Your task to perform on an android device: Go to battery settings Image 0: 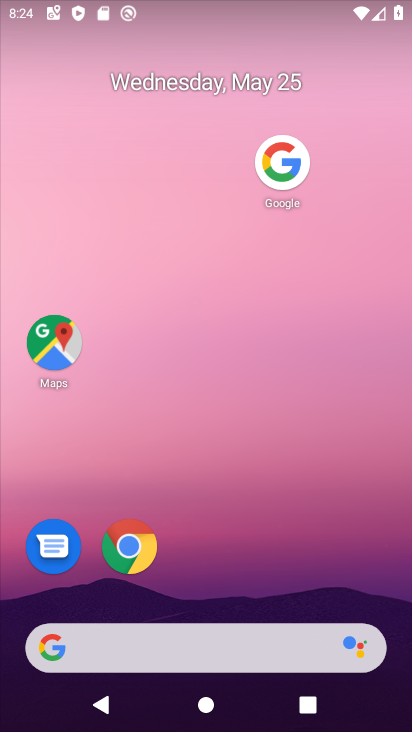
Step 0: press home button
Your task to perform on an android device: Go to battery settings Image 1: 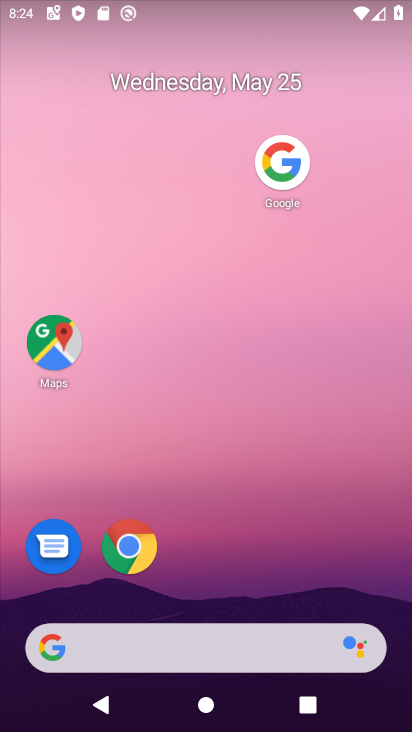
Step 1: drag from (171, 644) to (292, 55)
Your task to perform on an android device: Go to battery settings Image 2: 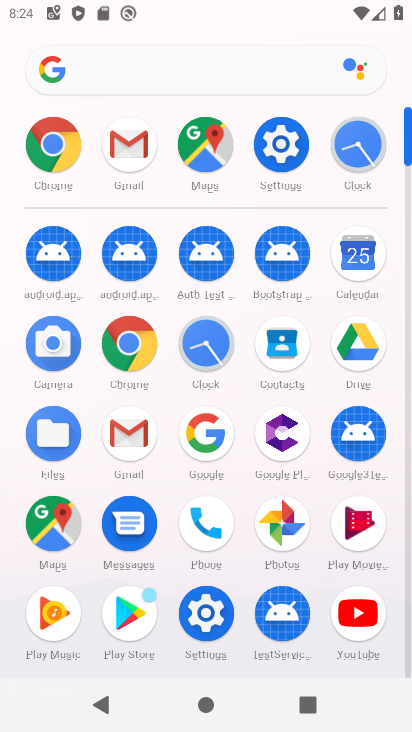
Step 2: click (274, 157)
Your task to perform on an android device: Go to battery settings Image 3: 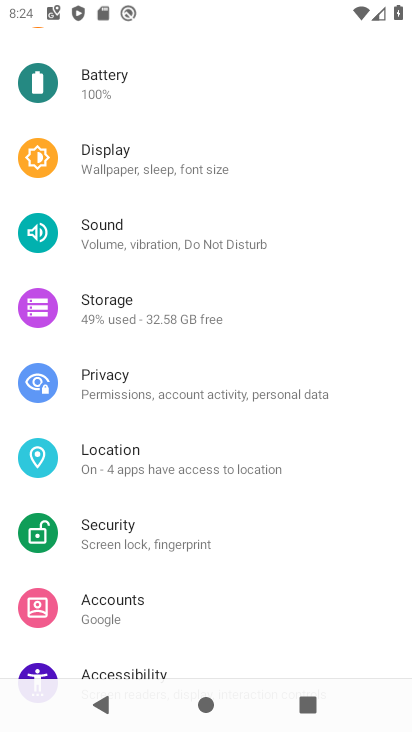
Step 3: click (92, 87)
Your task to perform on an android device: Go to battery settings Image 4: 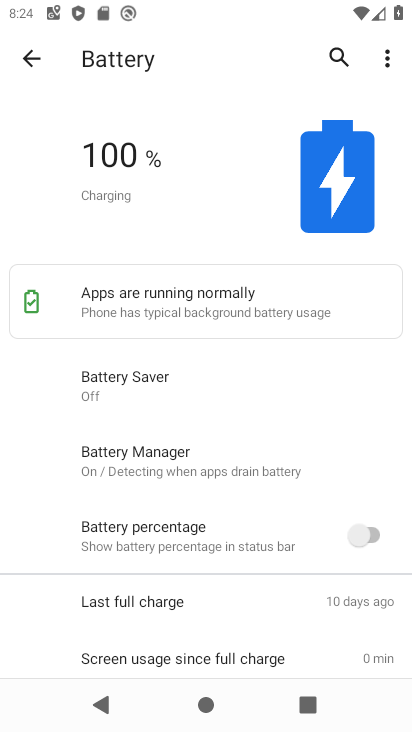
Step 4: task complete